Your task to perform on an android device: turn smart compose on in the gmail app Image 0: 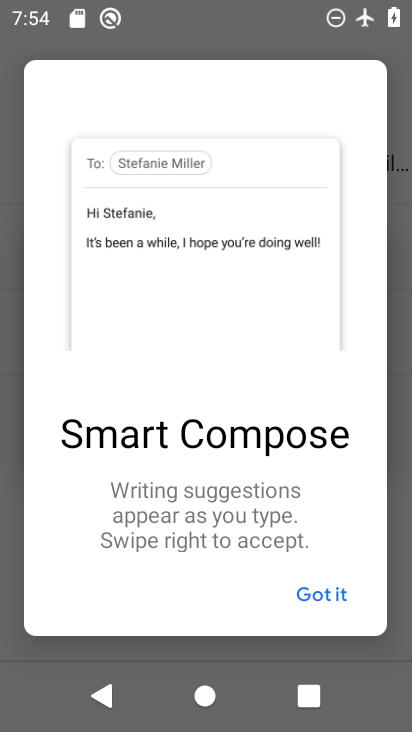
Step 0: press home button
Your task to perform on an android device: turn smart compose on in the gmail app Image 1: 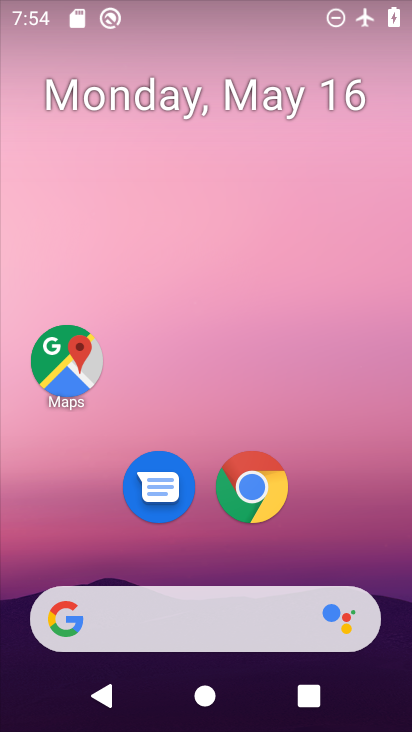
Step 1: drag from (299, 549) to (345, 158)
Your task to perform on an android device: turn smart compose on in the gmail app Image 2: 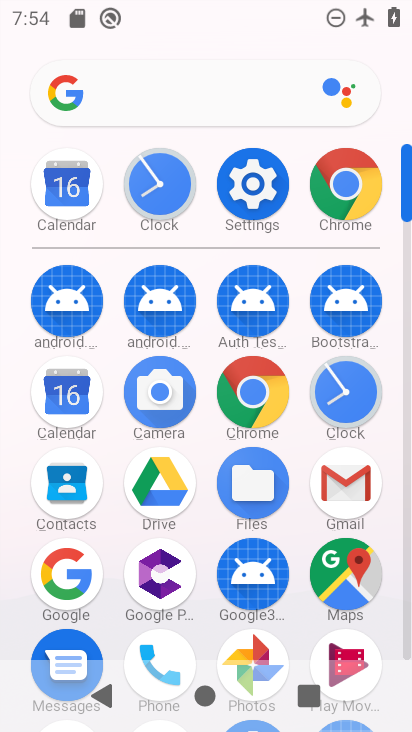
Step 2: click (334, 472)
Your task to perform on an android device: turn smart compose on in the gmail app Image 3: 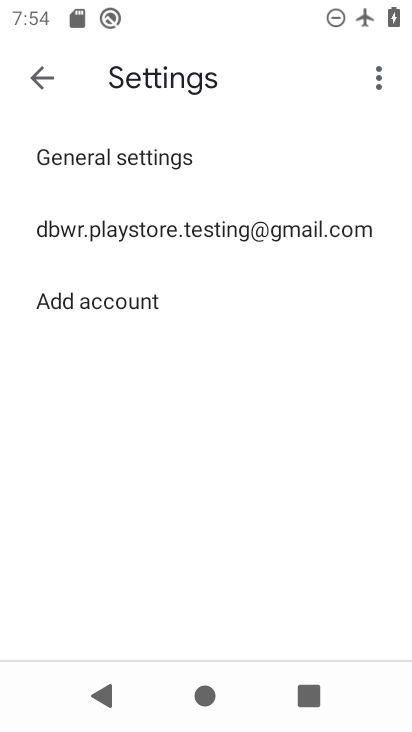
Step 3: click (111, 218)
Your task to perform on an android device: turn smart compose on in the gmail app Image 4: 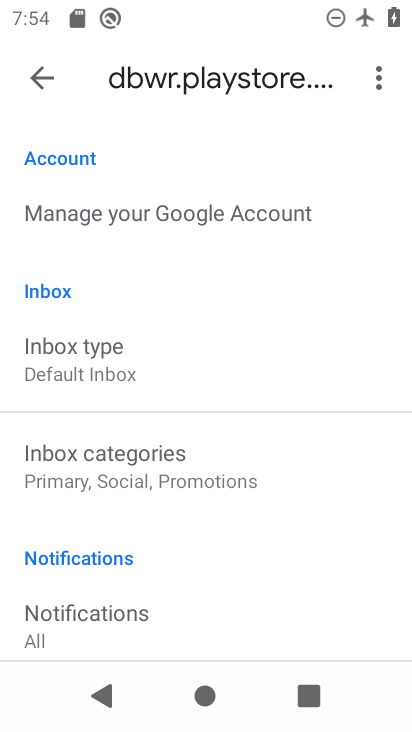
Step 4: task complete